Your task to perform on an android device: What's the weather going to be tomorrow? Image 0: 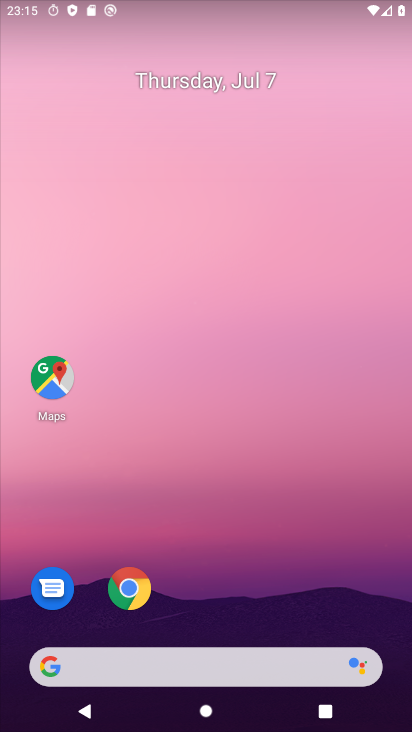
Step 0: drag from (321, 574) to (362, 36)
Your task to perform on an android device: What's the weather going to be tomorrow? Image 1: 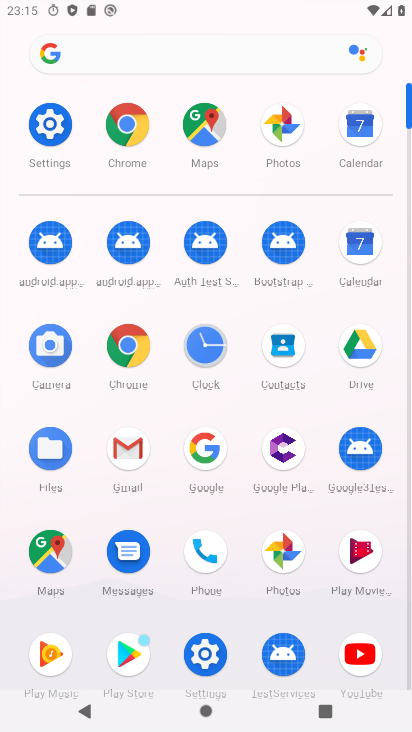
Step 1: click (131, 125)
Your task to perform on an android device: What's the weather going to be tomorrow? Image 2: 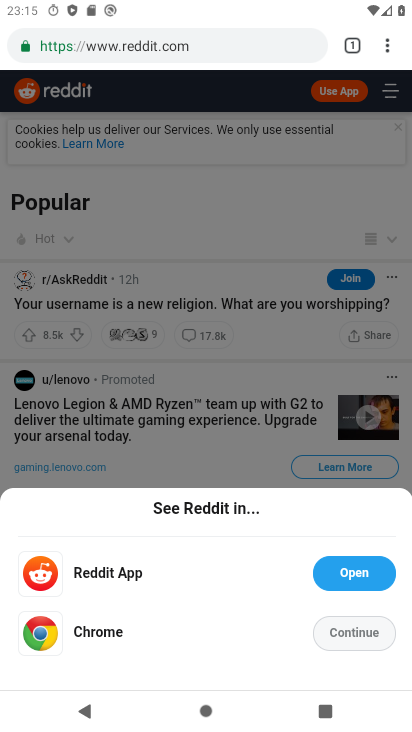
Step 2: click (222, 40)
Your task to perform on an android device: What's the weather going to be tomorrow? Image 3: 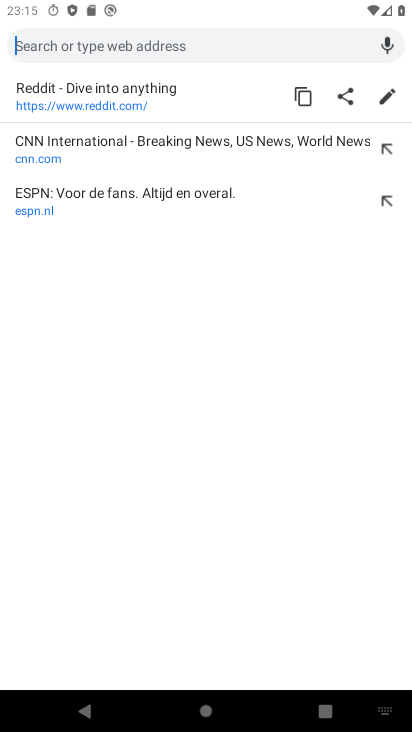
Step 3: type "weather"
Your task to perform on an android device: What's the weather going to be tomorrow? Image 4: 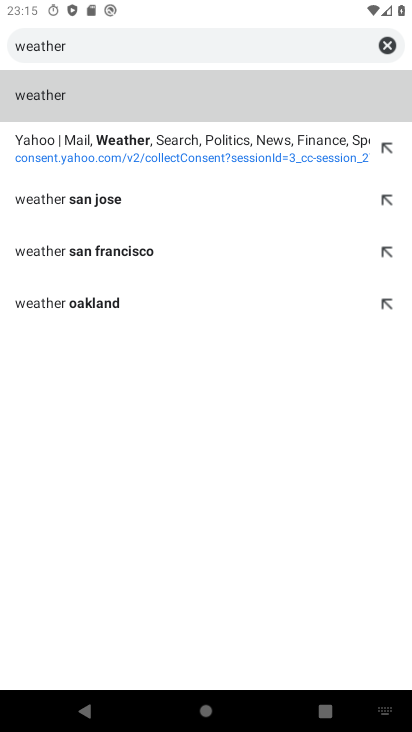
Step 4: click (45, 90)
Your task to perform on an android device: What's the weather going to be tomorrow? Image 5: 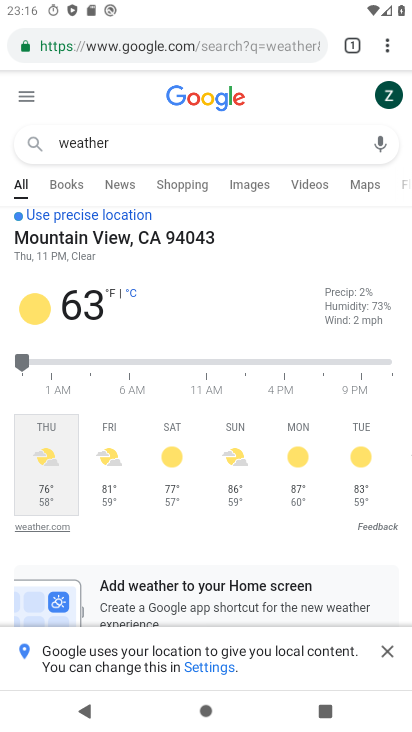
Step 5: click (107, 461)
Your task to perform on an android device: What's the weather going to be tomorrow? Image 6: 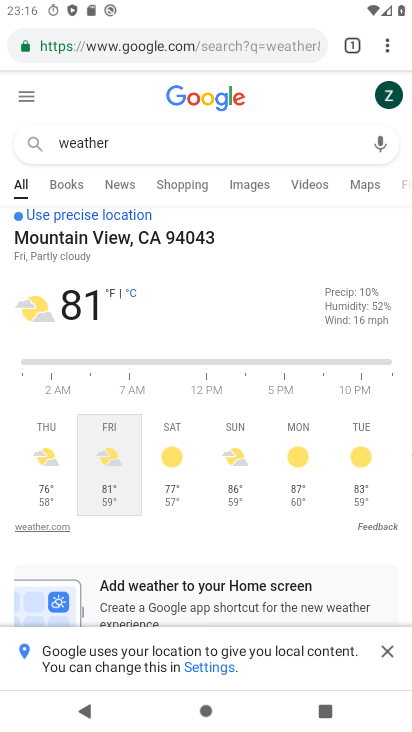
Step 6: task complete